Your task to perform on an android device: change text size in settings app Image 0: 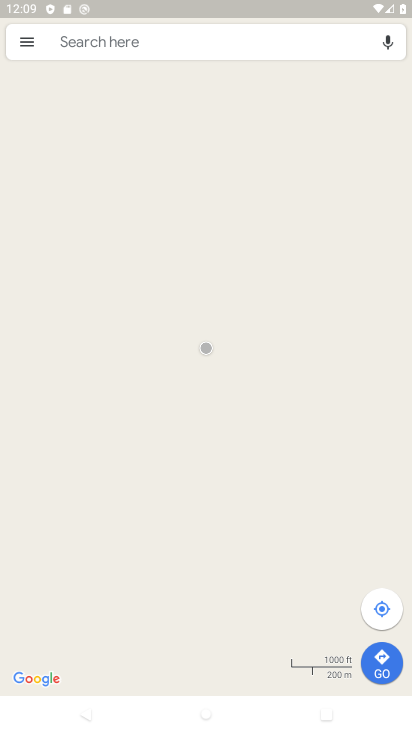
Step 0: press home button
Your task to perform on an android device: change text size in settings app Image 1: 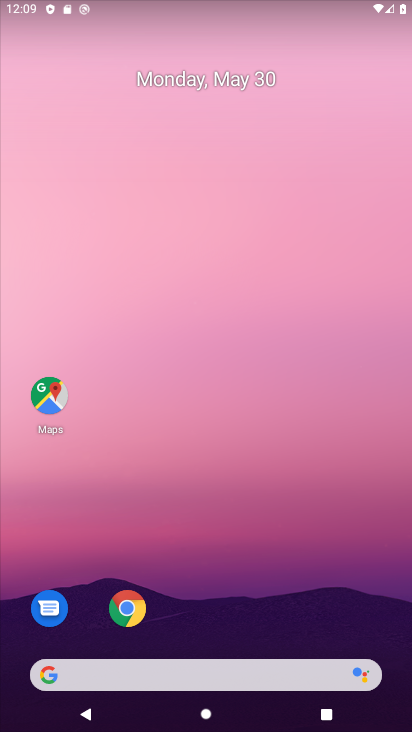
Step 1: drag from (316, 628) to (283, 76)
Your task to perform on an android device: change text size in settings app Image 2: 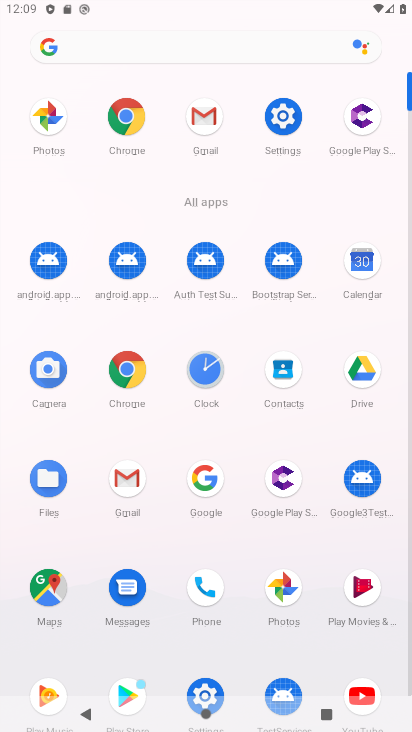
Step 2: click (291, 119)
Your task to perform on an android device: change text size in settings app Image 3: 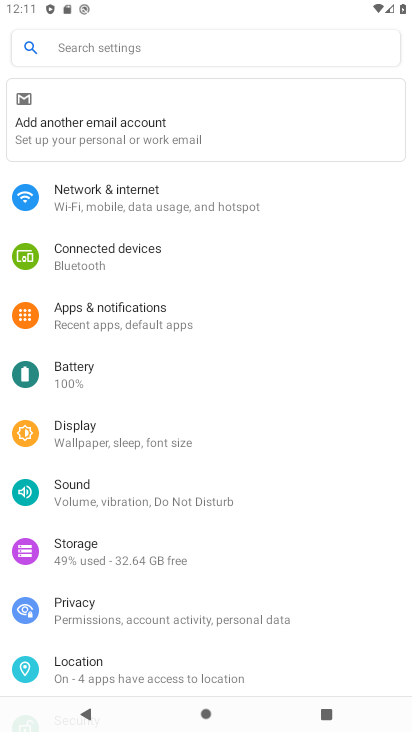
Step 3: click (113, 428)
Your task to perform on an android device: change text size in settings app Image 4: 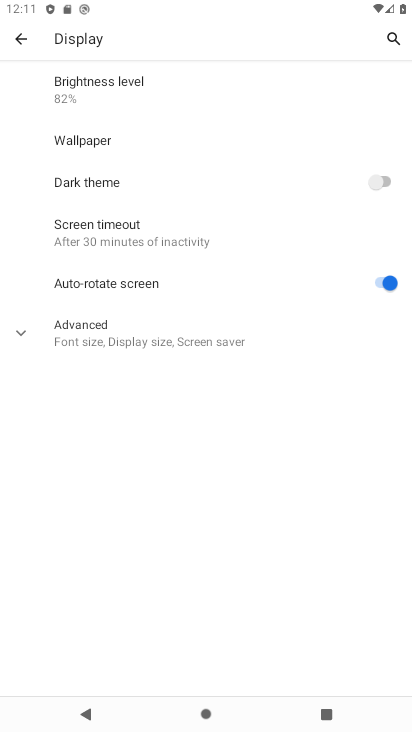
Step 4: click (124, 341)
Your task to perform on an android device: change text size in settings app Image 5: 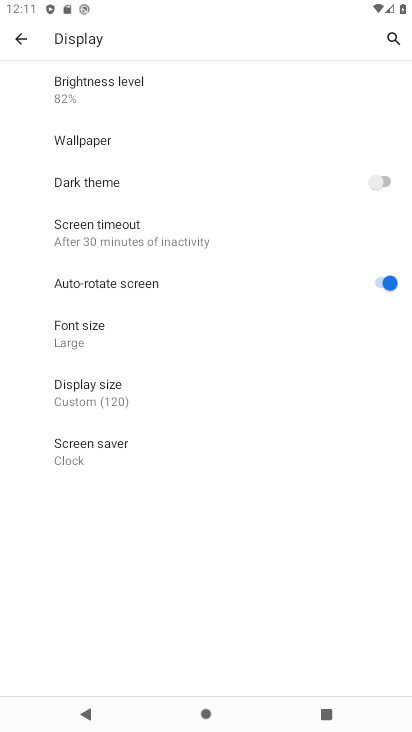
Step 5: click (96, 325)
Your task to perform on an android device: change text size in settings app Image 6: 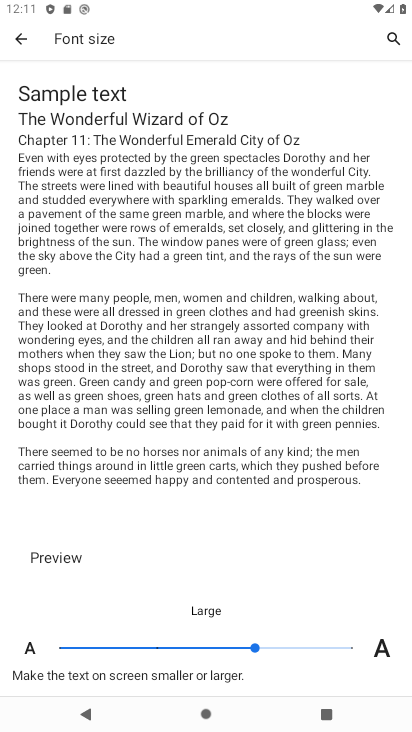
Step 6: click (347, 650)
Your task to perform on an android device: change text size in settings app Image 7: 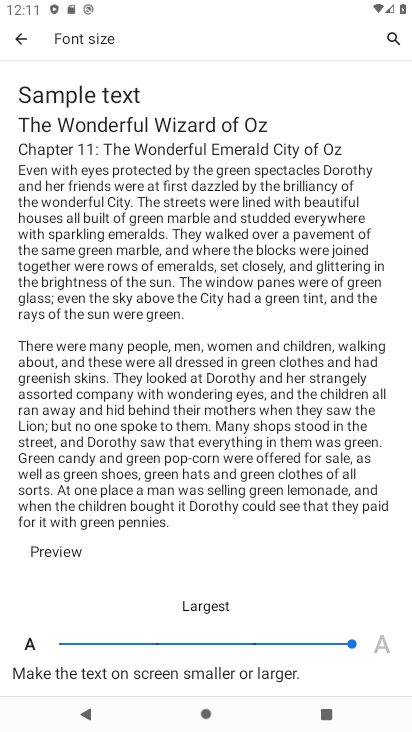
Step 7: task complete